Your task to perform on an android device: open app "PUBG MOBILE" (install if not already installed) and enter user name: "phenomenologically@gmail.com" and password: "artillery" Image 0: 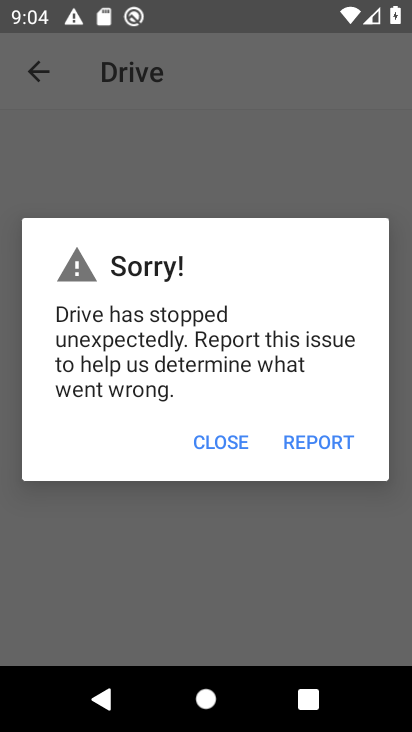
Step 0: press home button
Your task to perform on an android device: open app "PUBG MOBILE" (install if not already installed) and enter user name: "phenomenologically@gmail.com" and password: "artillery" Image 1: 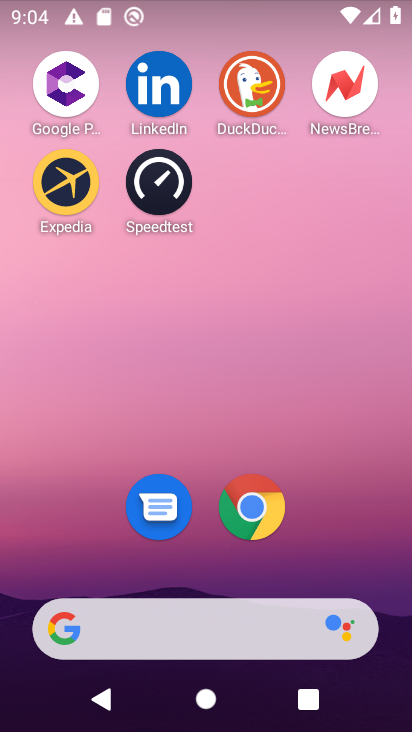
Step 1: drag from (168, 614) to (215, 94)
Your task to perform on an android device: open app "PUBG MOBILE" (install if not already installed) and enter user name: "phenomenologically@gmail.com" and password: "artillery" Image 2: 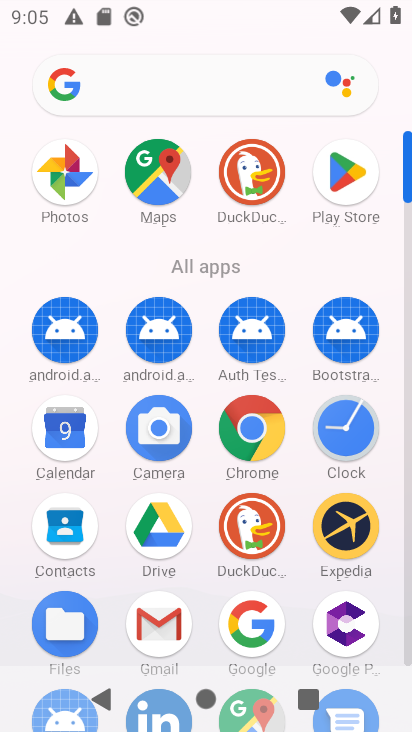
Step 2: click (346, 180)
Your task to perform on an android device: open app "PUBG MOBILE" (install if not already installed) and enter user name: "phenomenologically@gmail.com" and password: "artillery" Image 3: 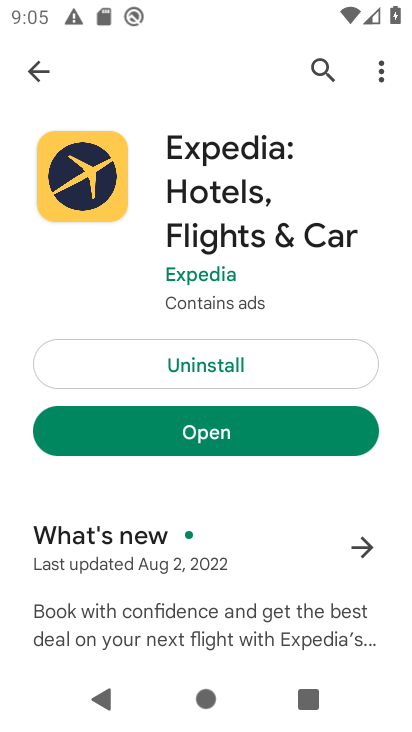
Step 3: click (322, 68)
Your task to perform on an android device: open app "PUBG MOBILE" (install if not already installed) and enter user name: "phenomenologically@gmail.com" and password: "artillery" Image 4: 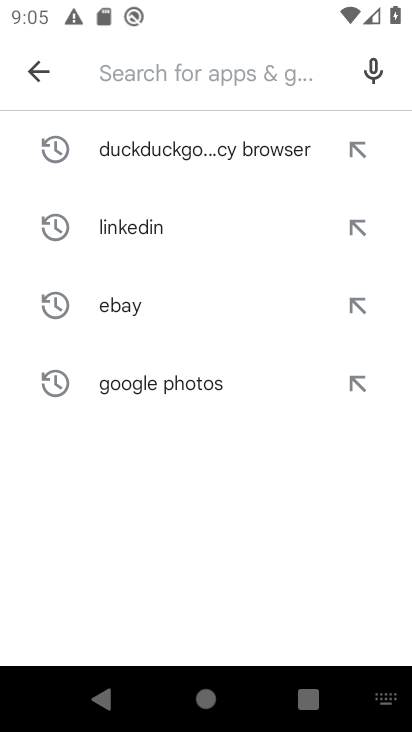
Step 4: type "PUBG MOBIE"
Your task to perform on an android device: open app "PUBG MOBILE" (install if not already installed) and enter user name: "phenomenologically@gmail.com" and password: "artillery" Image 5: 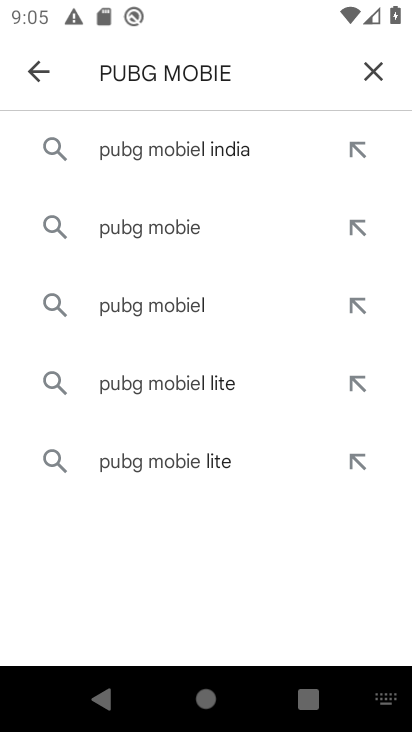
Step 5: click (215, 70)
Your task to perform on an android device: open app "PUBG MOBILE" (install if not already installed) and enter user name: "phenomenologically@gmail.com" and password: "artillery" Image 6: 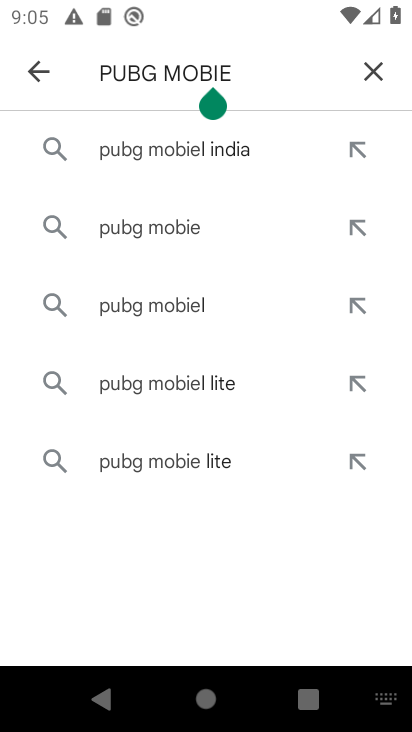
Step 6: click (370, 68)
Your task to perform on an android device: open app "PUBG MOBILE" (install if not already installed) and enter user name: "phenomenologically@gmail.com" and password: "artillery" Image 7: 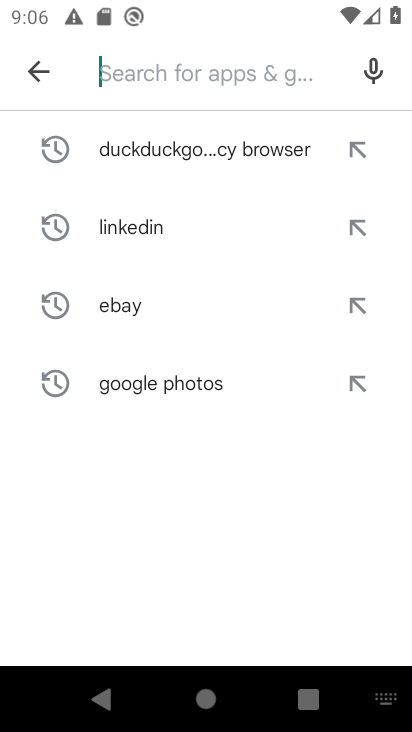
Step 7: type "PUBG MOBILE"
Your task to perform on an android device: open app "PUBG MOBILE" (install if not already installed) and enter user name: "phenomenologically@gmail.com" and password: "artillery" Image 8: 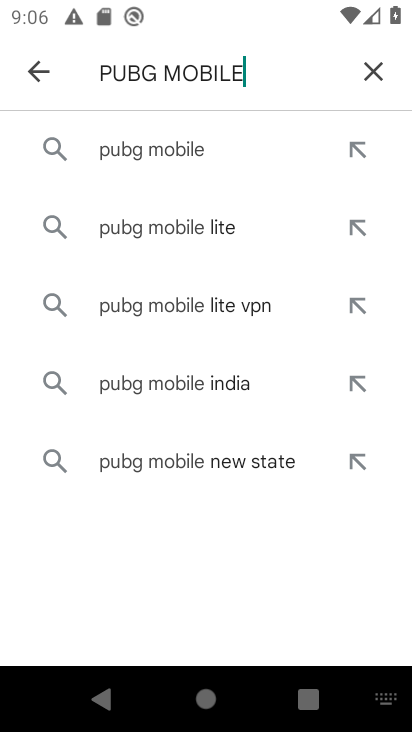
Step 8: click (164, 141)
Your task to perform on an android device: open app "PUBG MOBILE" (install if not already installed) and enter user name: "phenomenologically@gmail.com" and password: "artillery" Image 9: 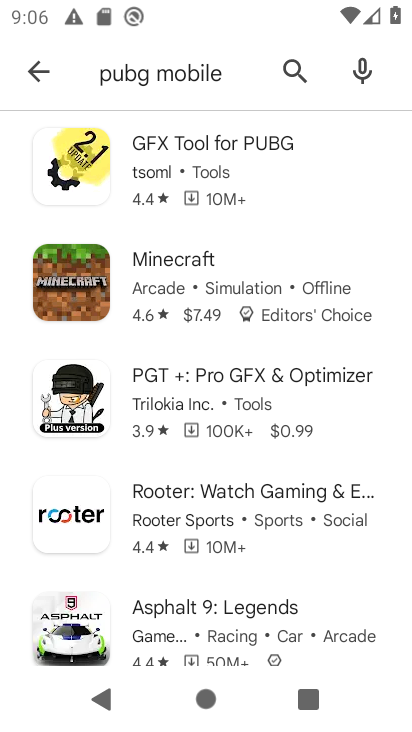
Step 9: drag from (206, 488) to (299, 353)
Your task to perform on an android device: open app "PUBG MOBILE" (install if not already installed) and enter user name: "phenomenologically@gmail.com" and password: "artillery" Image 10: 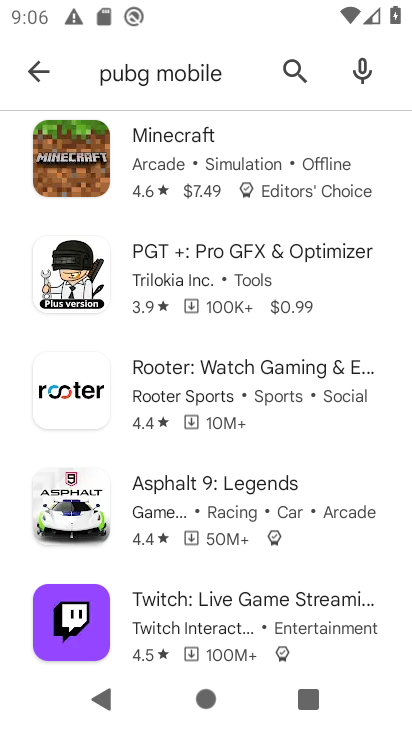
Step 10: drag from (196, 560) to (285, 389)
Your task to perform on an android device: open app "PUBG MOBILE" (install if not already installed) and enter user name: "phenomenologically@gmail.com" and password: "artillery" Image 11: 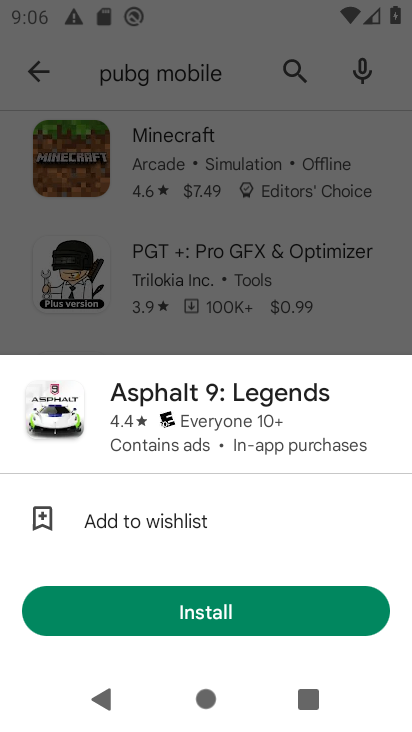
Step 11: click (294, 232)
Your task to perform on an android device: open app "PUBG MOBILE" (install if not already installed) and enter user name: "phenomenologically@gmail.com" and password: "artillery" Image 12: 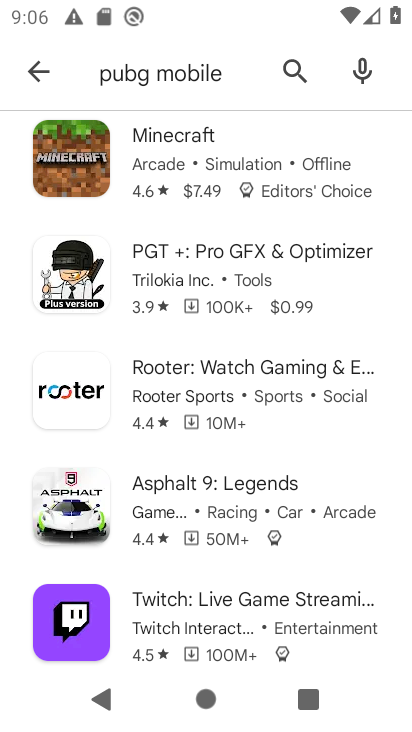
Step 12: task complete